Your task to perform on an android device: toggle wifi Image 0: 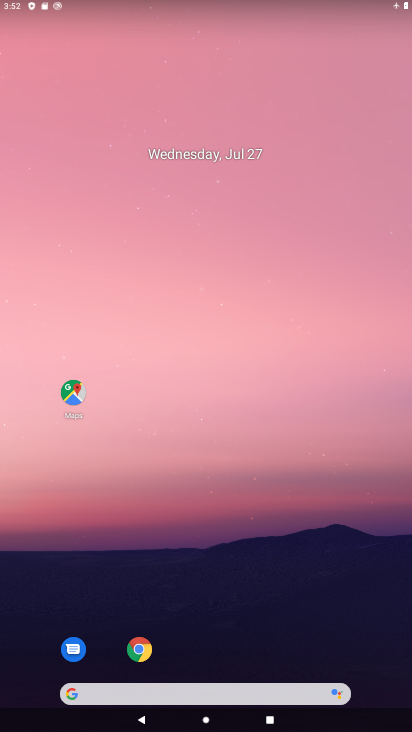
Step 0: drag from (239, 644) to (253, 107)
Your task to perform on an android device: toggle wifi Image 1: 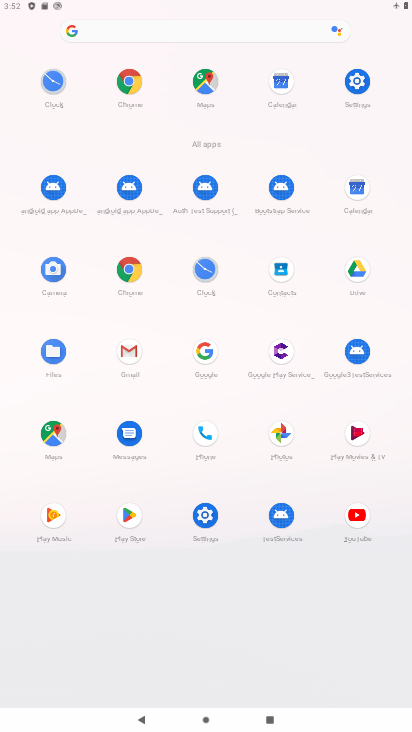
Step 1: click (361, 82)
Your task to perform on an android device: toggle wifi Image 2: 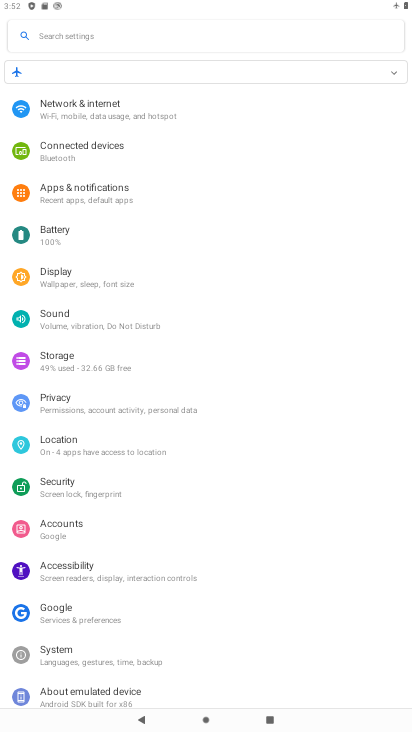
Step 2: click (315, 98)
Your task to perform on an android device: toggle wifi Image 3: 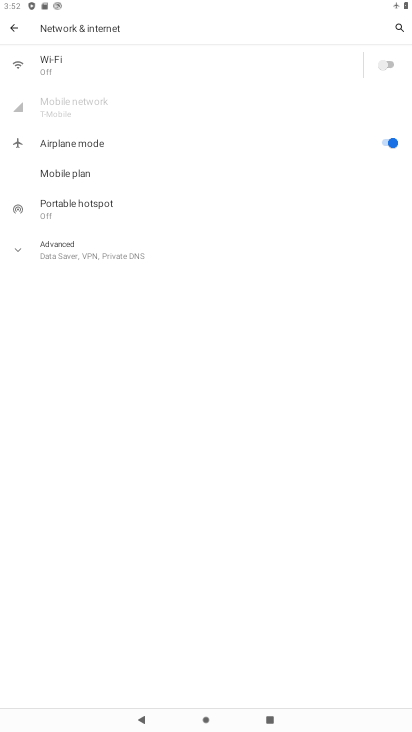
Step 3: click (390, 73)
Your task to perform on an android device: toggle wifi Image 4: 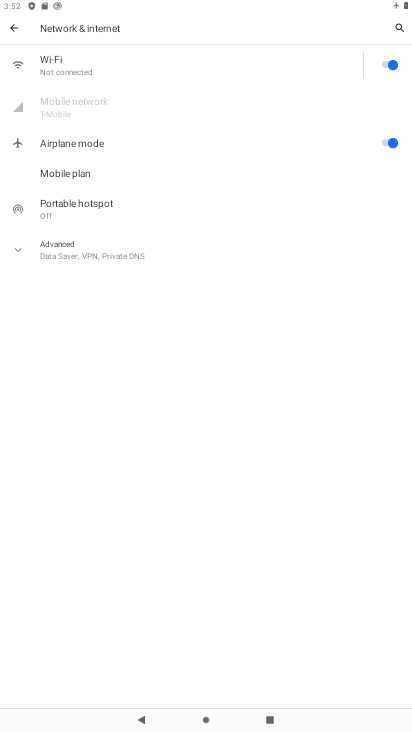
Step 4: task complete